Your task to perform on an android device: Show me popular games on the Play Store Image 0: 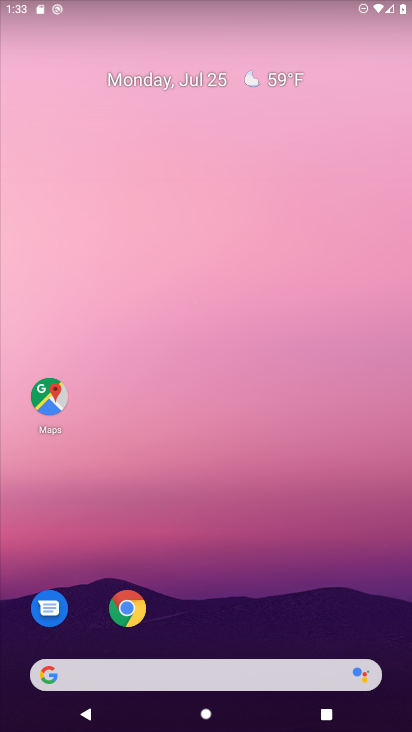
Step 0: drag from (394, 641) to (335, 103)
Your task to perform on an android device: Show me popular games on the Play Store Image 1: 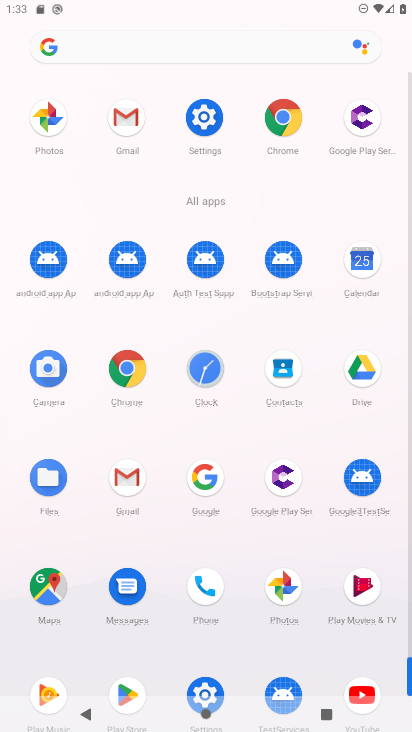
Step 1: click (125, 684)
Your task to perform on an android device: Show me popular games on the Play Store Image 2: 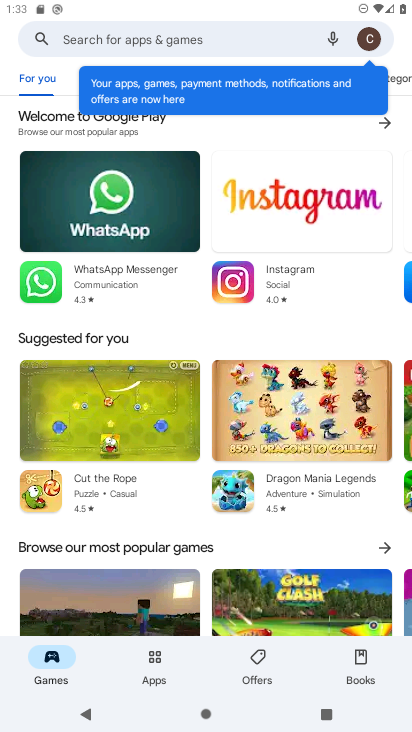
Step 2: drag from (247, 548) to (230, 254)
Your task to perform on an android device: Show me popular games on the Play Store Image 3: 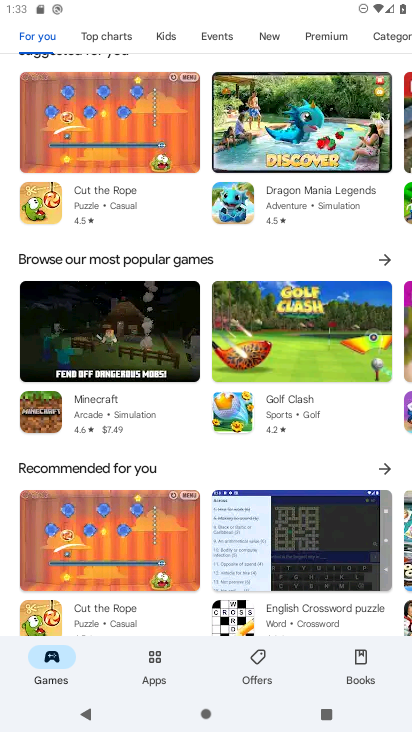
Step 3: click (383, 256)
Your task to perform on an android device: Show me popular games on the Play Store Image 4: 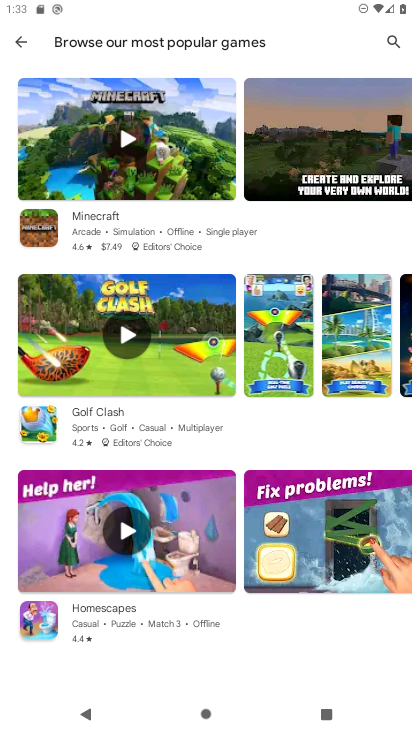
Step 4: task complete